Your task to perform on an android device: move an email to a new category in the gmail app Image 0: 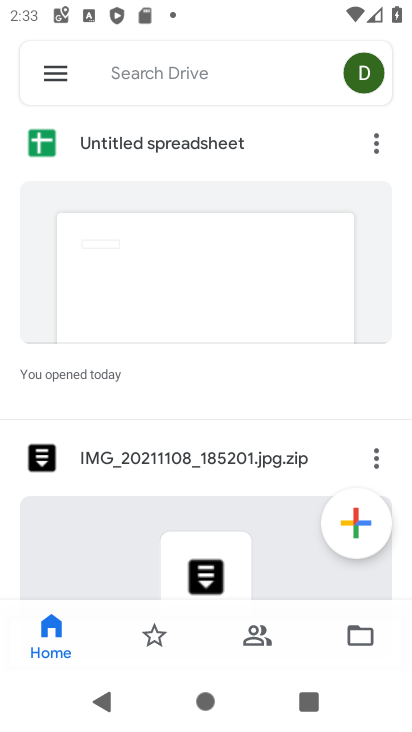
Step 0: press home button
Your task to perform on an android device: move an email to a new category in the gmail app Image 1: 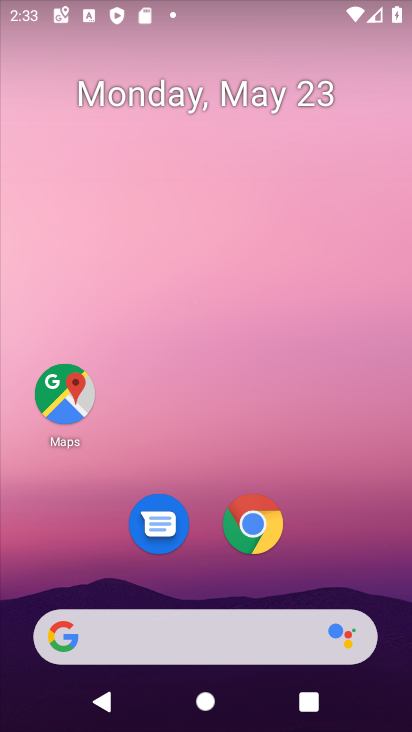
Step 1: drag from (207, 455) to (195, 8)
Your task to perform on an android device: move an email to a new category in the gmail app Image 2: 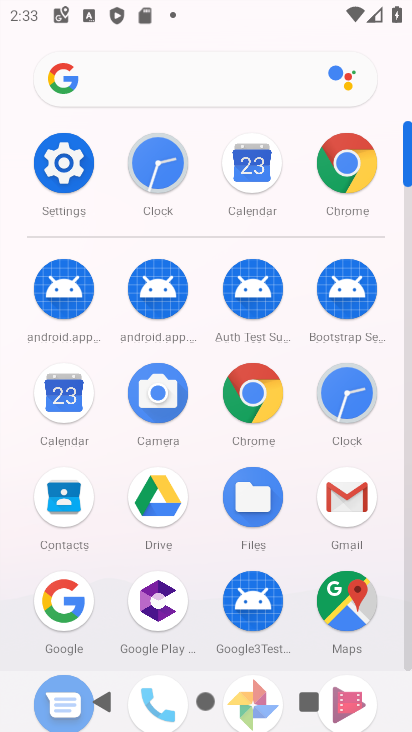
Step 2: click (337, 497)
Your task to perform on an android device: move an email to a new category in the gmail app Image 3: 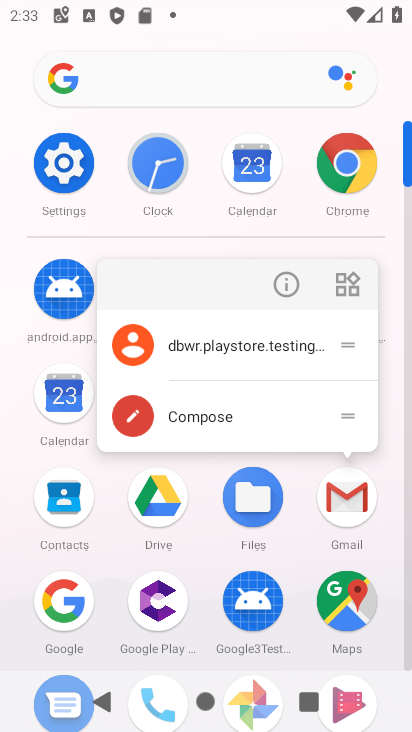
Step 3: click (337, 495)
Your task to perform on an android device: move an email to a new category in the gmail app Image 4: 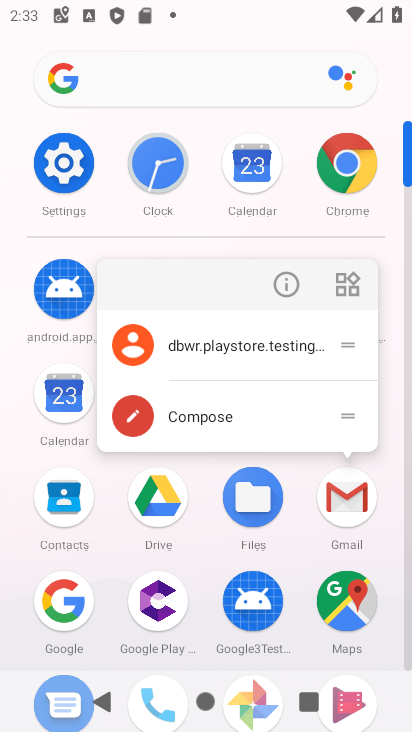
Step 4: click (345, 484)
Your task to perform on an android device: move an email to a new category in the gmail app Image 5: 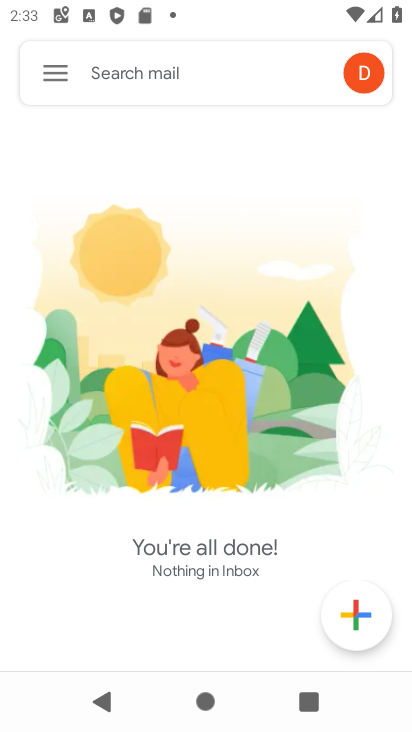
Step 5: click (53, 64)
Your task to perform on an android device: move an email to a new category in the gmail app Image 6: 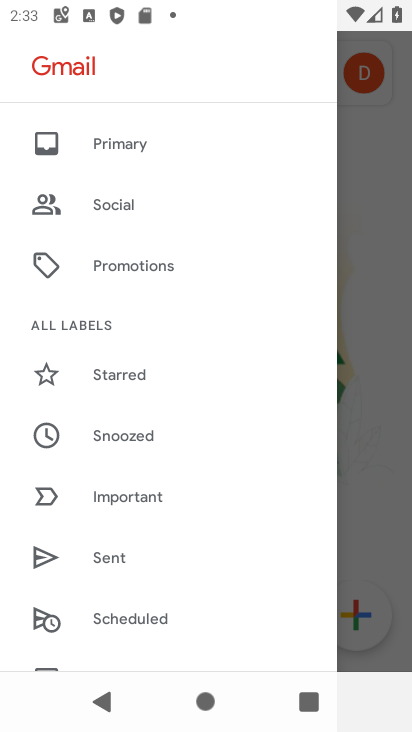
Step 6: drag from (202, 508) to (227, 101)
Your task to perform on an android device: move an email to a new category in the gmail app Image 7: 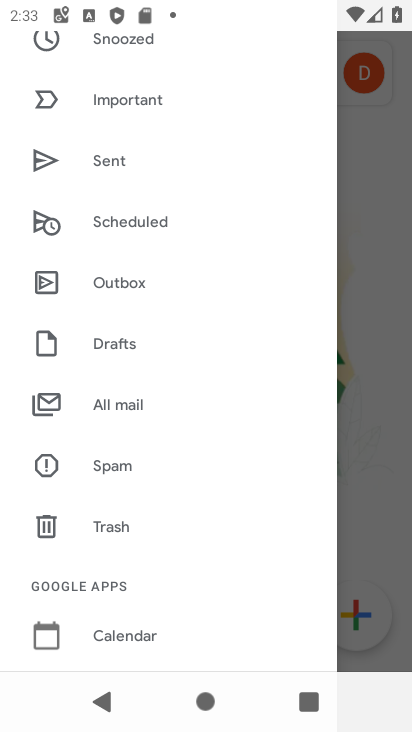
Step 7: click (143, 402)
Your task to perform on an android device: move an email to a new category in the gmail app Image 8: 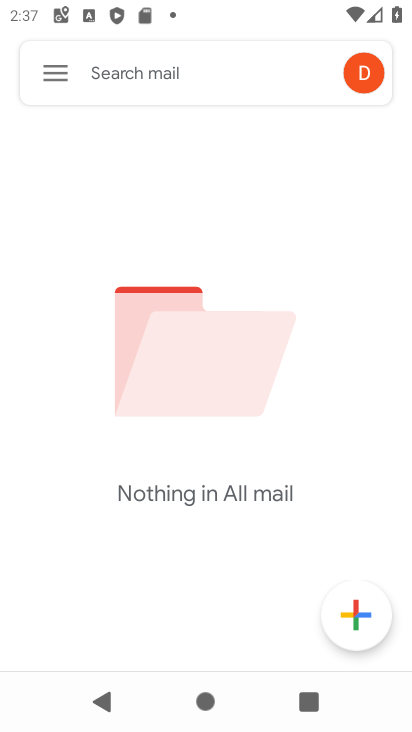
Step 8: task complete